Your task to perform on an android device: Open Reddit.com Image 0: 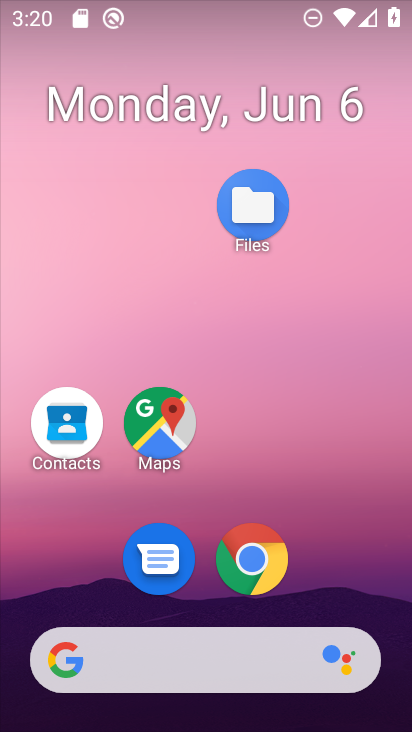
Step 0: drag from (244, 641) to (188, 230)
Your task to perform on an android device: Open Reddit.com Image 1: 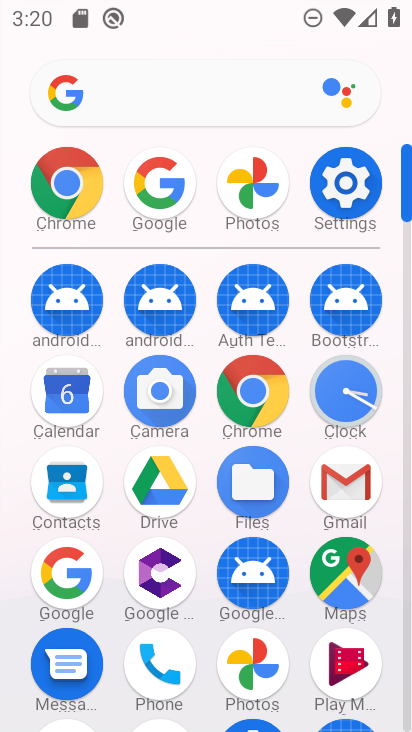
Step 1: click (65, 203)
Your task to perform on an android device: Open Reddit.com Image 2: 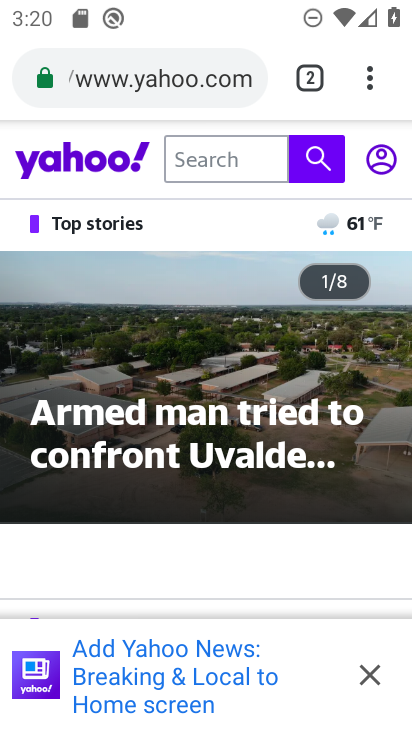
Step 2: click (172, 84)
Your task to perform on an android device: Open Reddit.com Image 3: 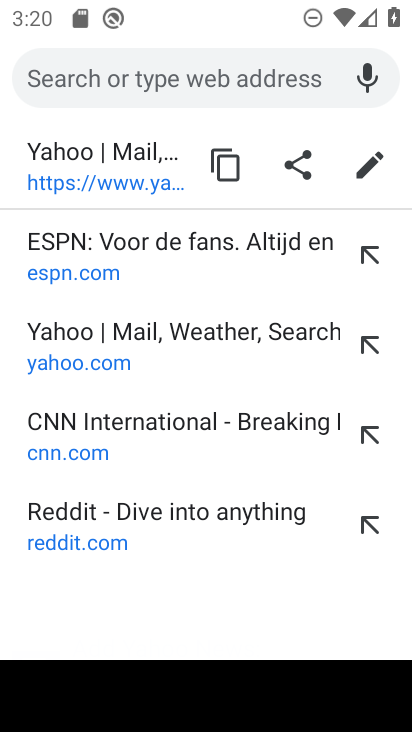
Step 3: click (140, 546)
Your task to perform on an android device: Open Reddit.com Image 4: 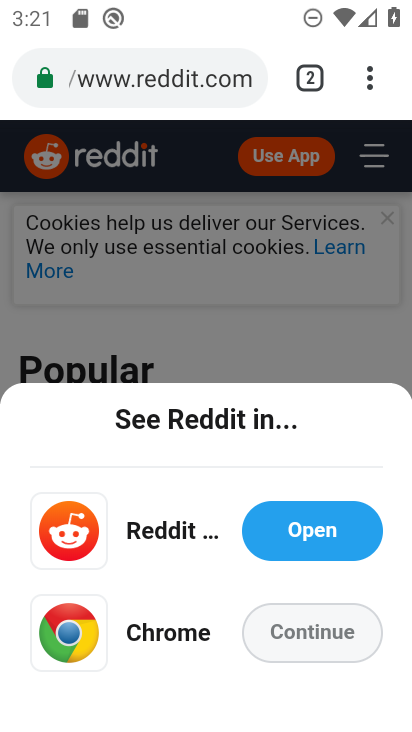
Step 4: task complete